Your task to perform on an android device: clear all cookies in the chrome app Image 0: 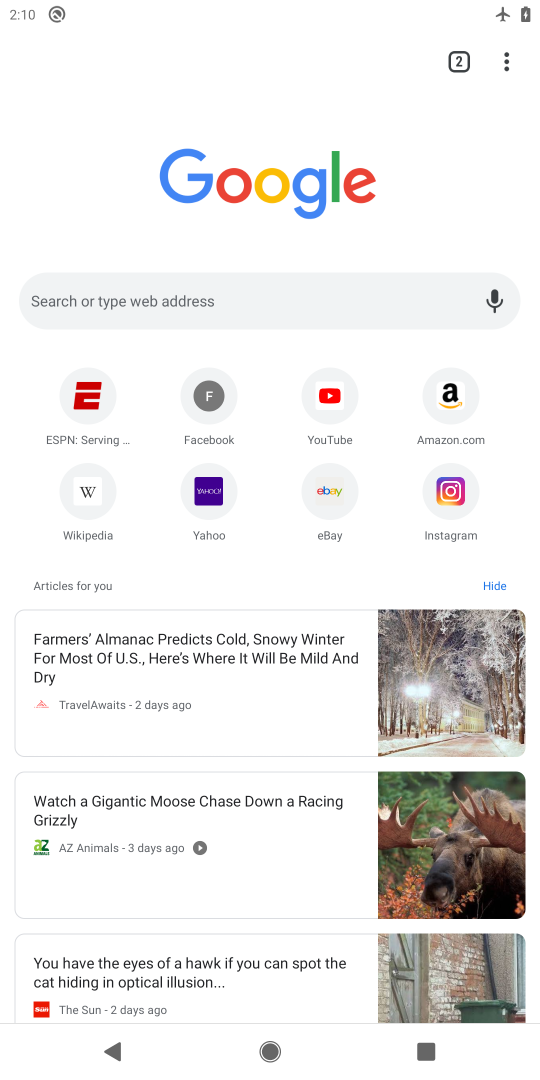
Step 0: drag from (510, 64) to (264, 591)
Your task to perform on an android device: clear all cookies in the chrome app Image 1: 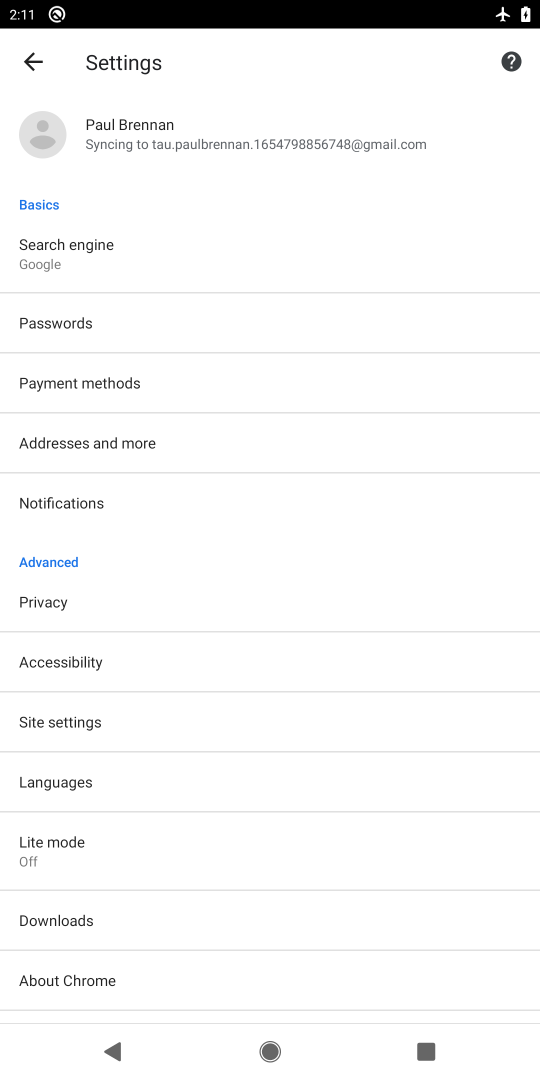
Step 1: click (71, 604)
Your task to perform on an android device: clear all cookies in the chrome app Image 2: 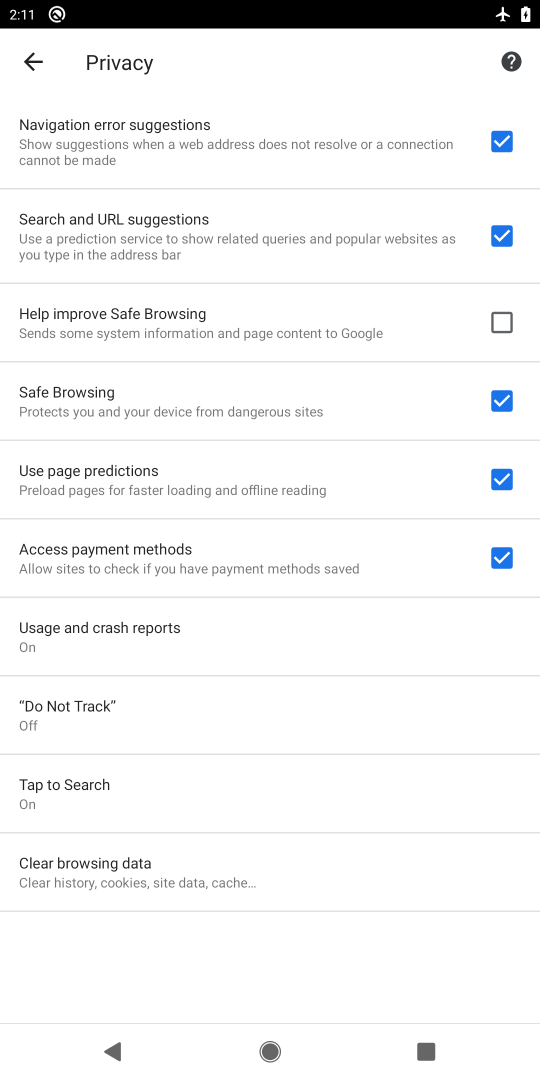
Step 2: drag from (243, 174) to (265, 744)
Your task to perform on an android device: clear all cookies in the chrome app Image 3: 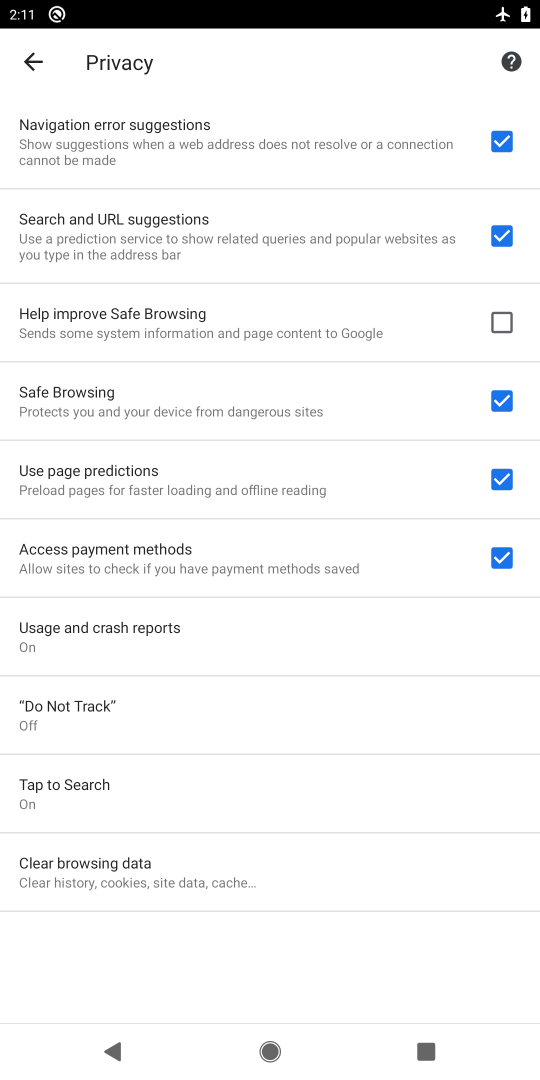
Step 3: click (121, 868)
Your task to perform on an android device: clear all cookies in the chrome app Image 4: 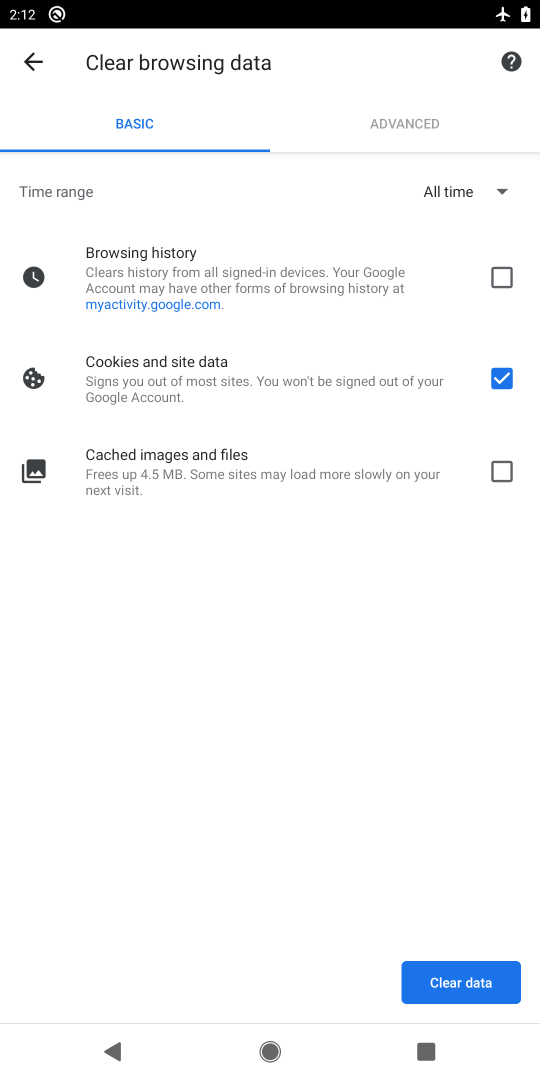
Step 4: click (458, 986)
Your task to perform on an android device: clear all cookies in the chrome app Image 5: 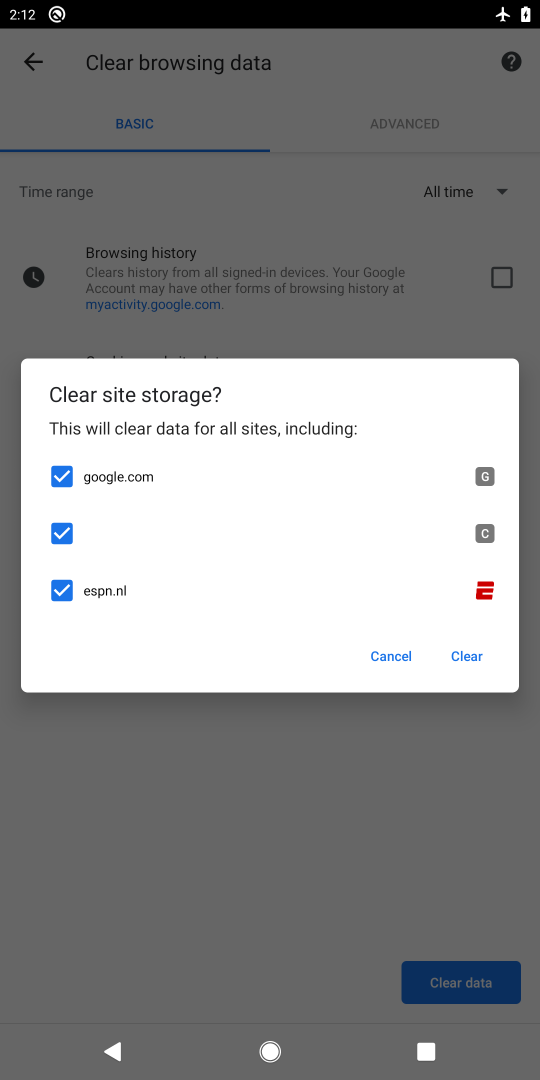
Step 5: click (461, 652)
Your task to perform on an android device: clear all cookies in the chrome app Image 6: 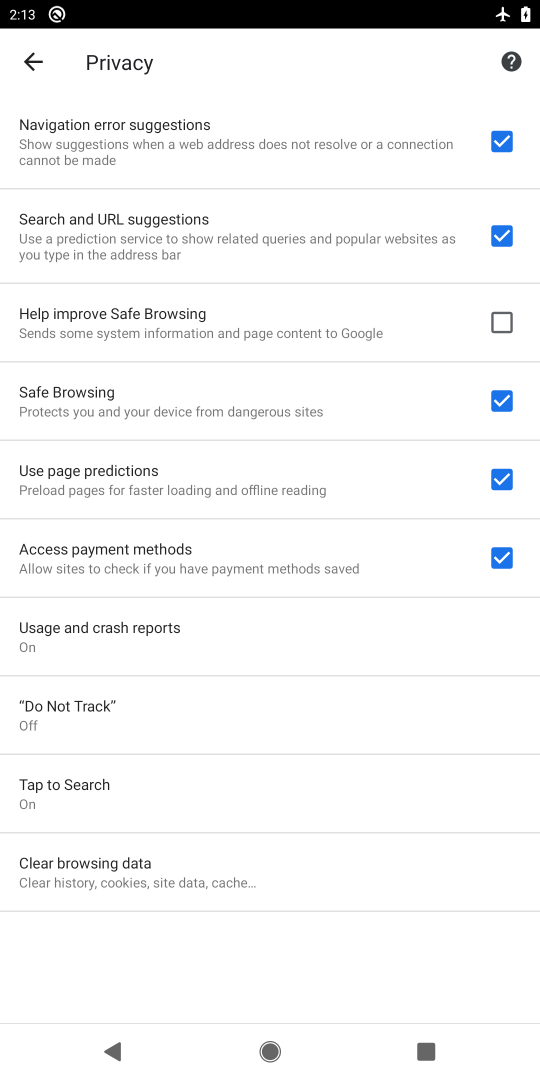
Step 6: task complete